Your task to perform on an android device: change the clock display to digital Image 0: 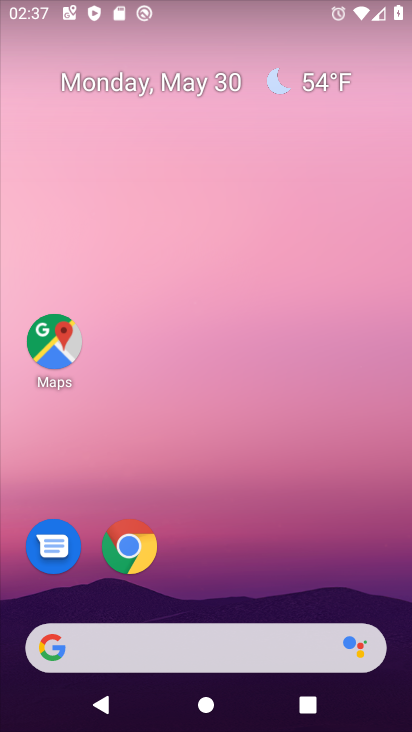
Step 0: press home button
Your task to perform on an android device: change the clock display to digital Image 1: 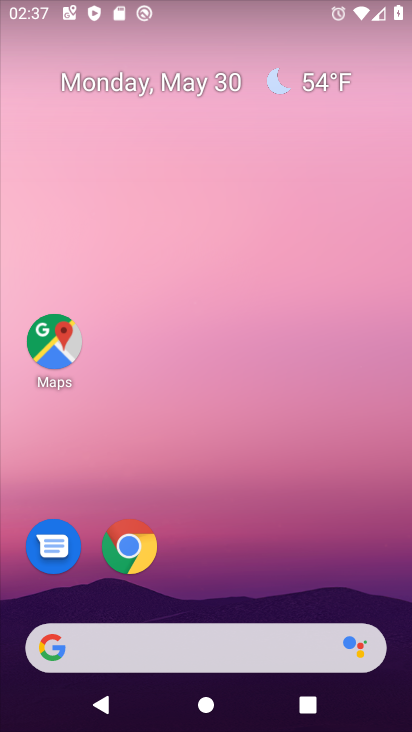
Step 1: drag from (215, 608) to (269, 64)
Your task to perform on an android device: change the clock display to digital Image 2: 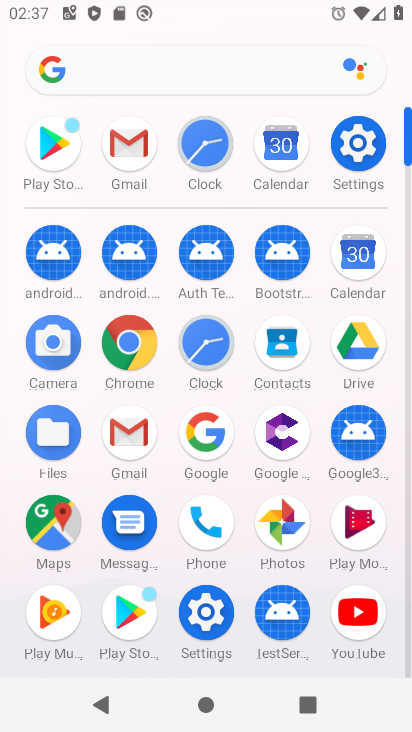
Step 2: click (208, 333)
Your task to perform on an android device: change the clock display to digital Image 3: 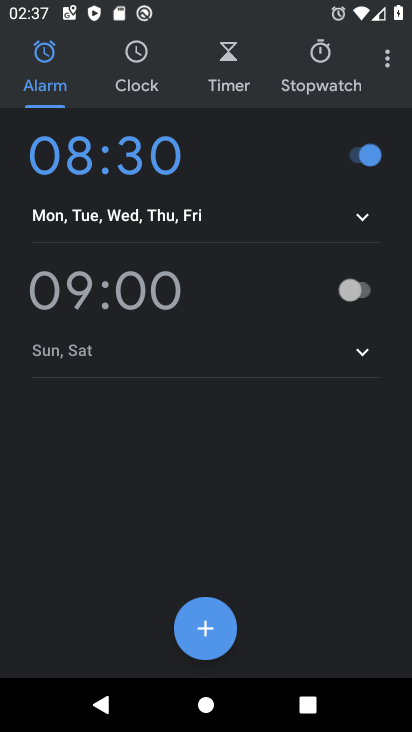
Step 3: click (387, 56)
Your task to perform on an android device: change the clock display to digital Image 4: 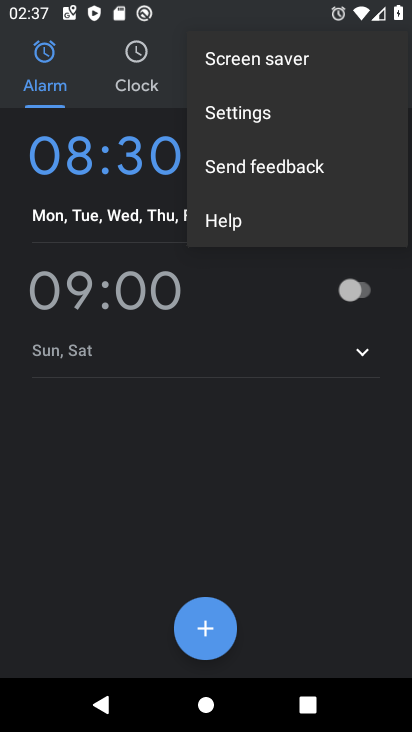
Step 4: click (288, 112)
Your task to perform on an android device: change the clock display to digital Image 5: 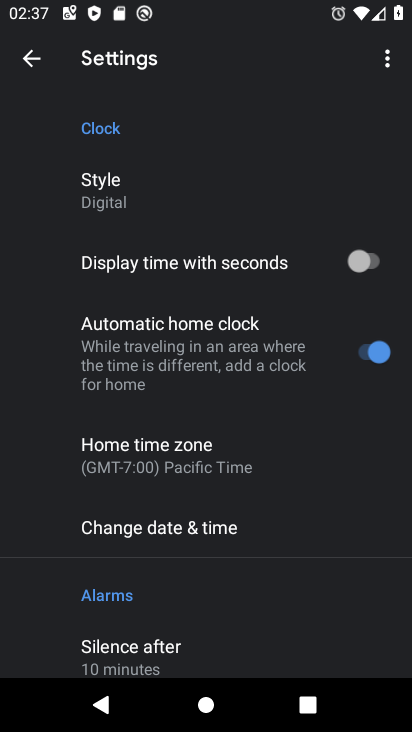
Step 5: click (159, 181)
Your task to perform on an android device: change the clock display to digital Image 6: 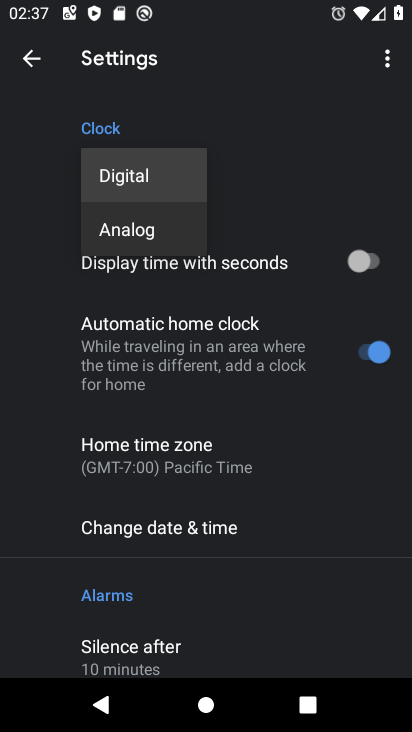
Step 6: click (171, 178)
Your task to perform on an android device: change the clock display to digital Image 7: 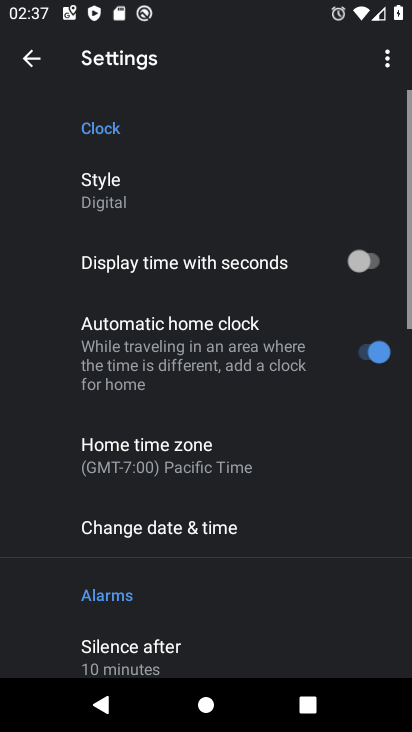
Step 7: task complete